Your task to perform on an android device: change the clock display to show seconds Image 0: 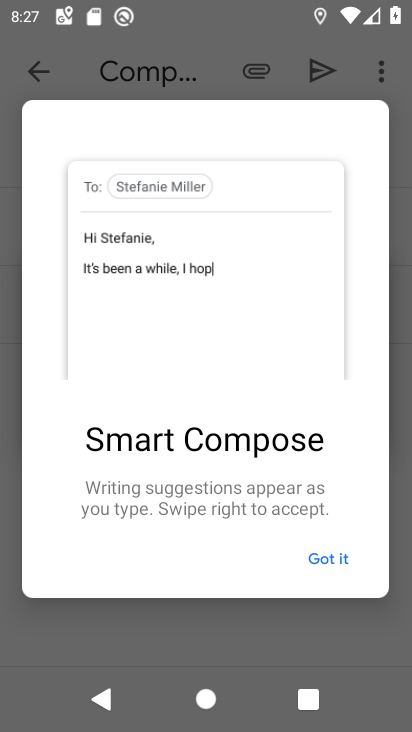
Step 0: press home button
Your task to perform on an android device: change the clock display to show seconds Image 1: 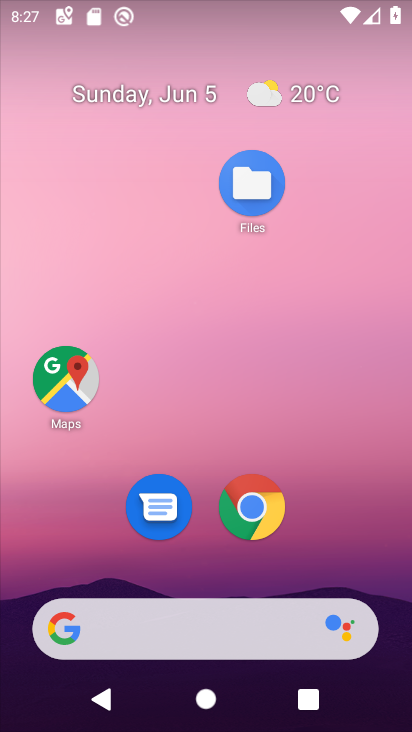
Step 1: drag from (225, 591) to (282, 85)
Your task to perform on an android device: change the clock display to show seconds Image 2: 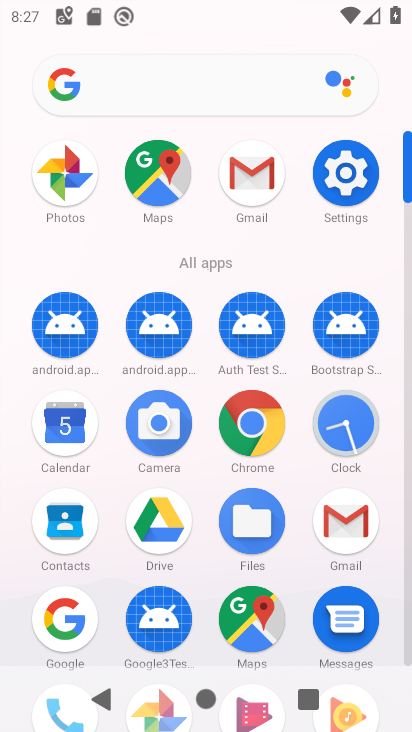
Step 2: click (353, 414)
Your task to perform on an android device: change the clock display to show seconds Image 3: 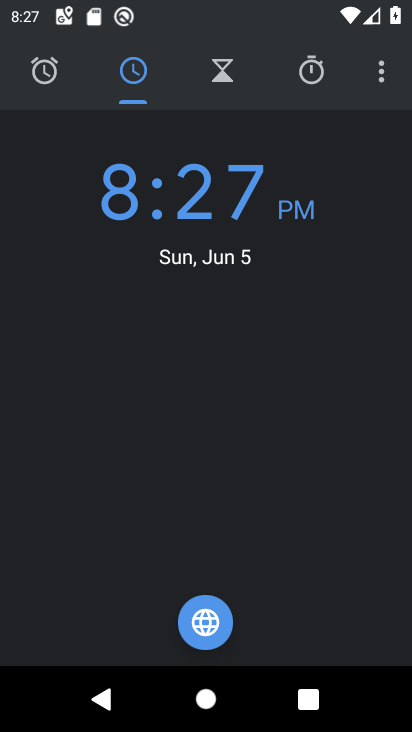
Step 3: click (379, 58)
Your task to perform on an android device: change the clock display to show seconds Image 4: 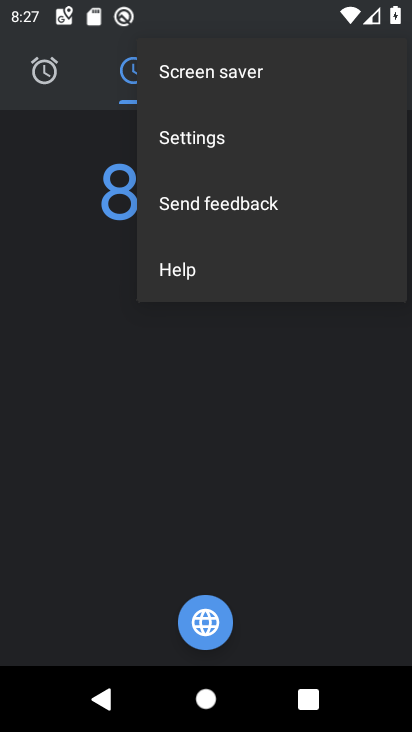
Step 4: click (209, 138)
Your task to perform on an android device: change the clock display to show seconds Image 5: 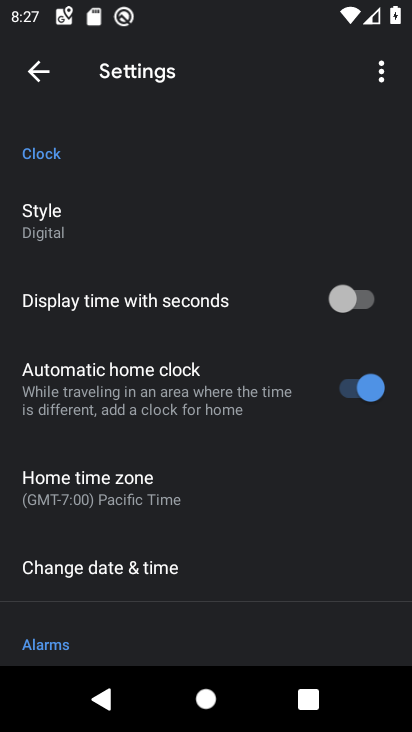
Step 5: click (350, 292)
Your task to perform on an android device: change the clock display to show seconds Image 6: 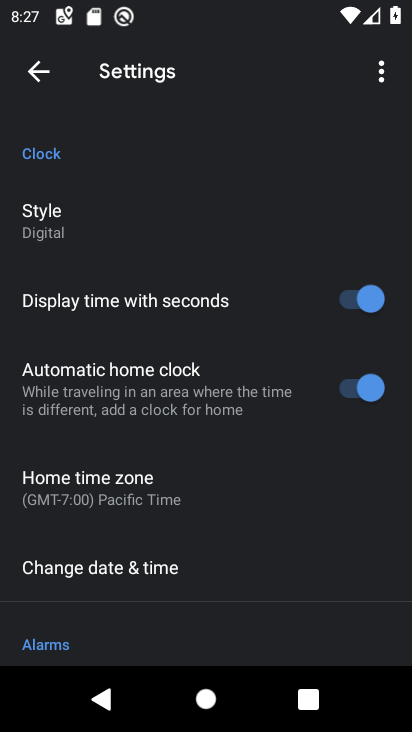
Step 6: task complete